Your task to perform on an android device: Go to Amazon Image 0: 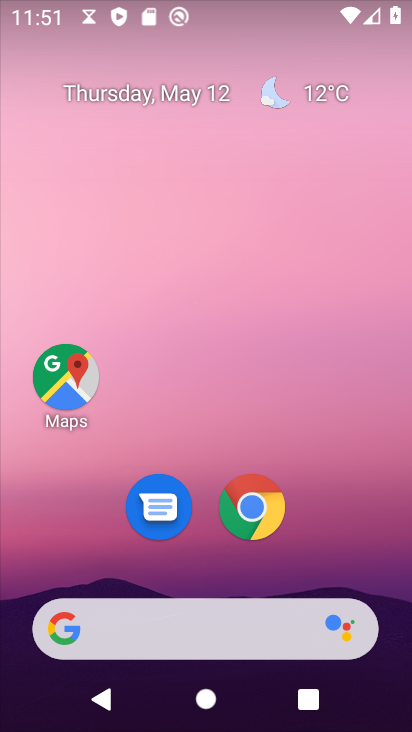
Step 0: drag from (318, 545) to (322, 97)
Your task to perform on an android device: Go to Amazon Image 1: 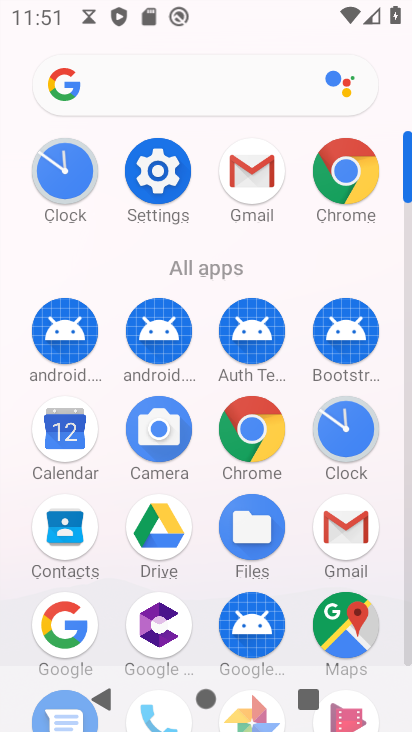
Step 1: click (347, 190)
Your task to perform on an android device: Go to Amazon Image 2: 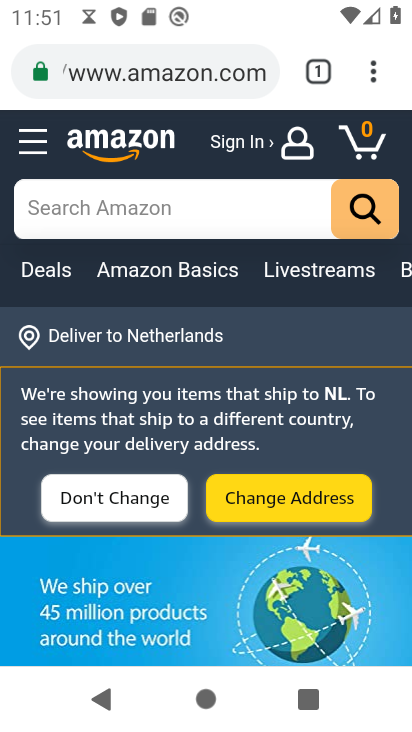
Step 2: task complete